Your task to perform on an android device: turn on priority inbox in the gmail app Image 0: 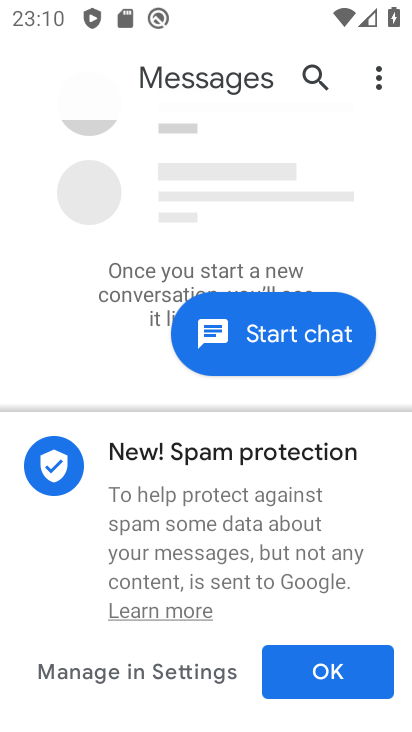
Step 0: press home button
Your task to perform on an android device: turn on priority inbox in the gmail app Image 1: 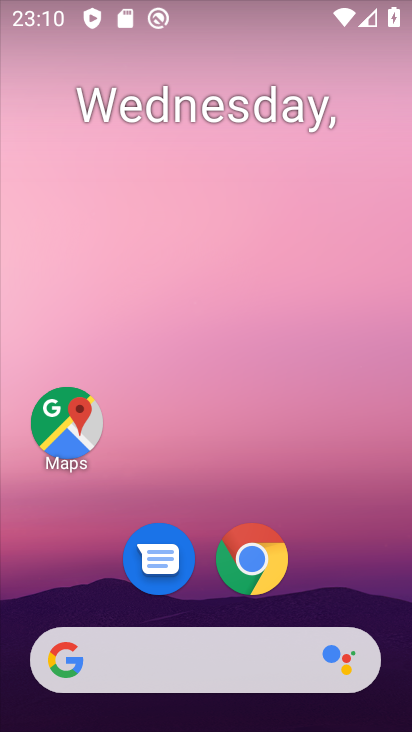
Step 1: drag from (75, 581) to (88, 237)
Your task to perform on an android device: turn on priority inbox in the gmail app Image 2: 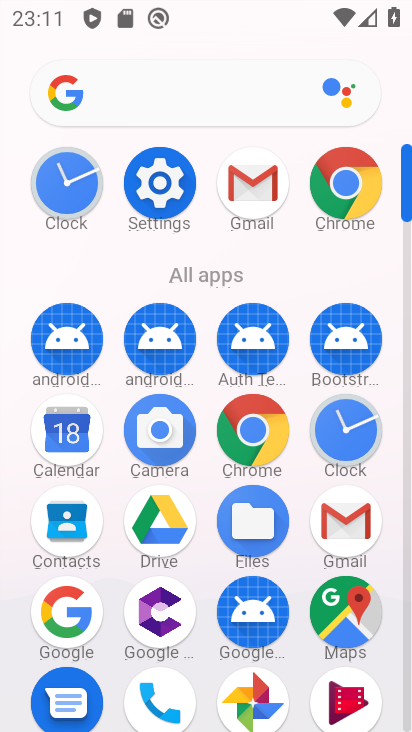
Step 2: click (271, 198)
Your task to perform on an android device: turn on priority inbox in the gmail app Image 3: 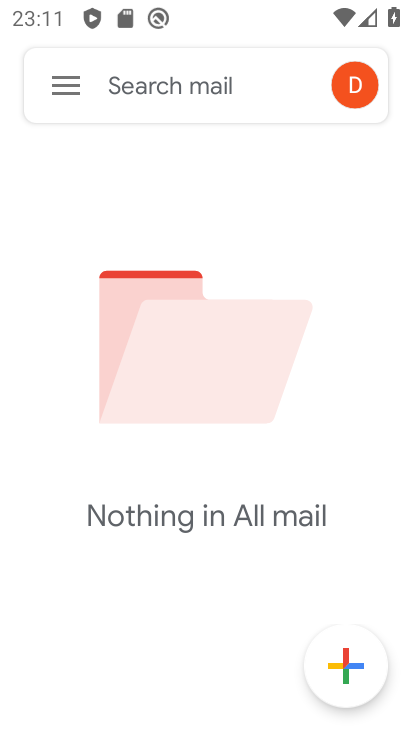
Step 3: click (70, 84)
Your task to perform on an android device: turn on priority inbox in the gmail app Image 4: 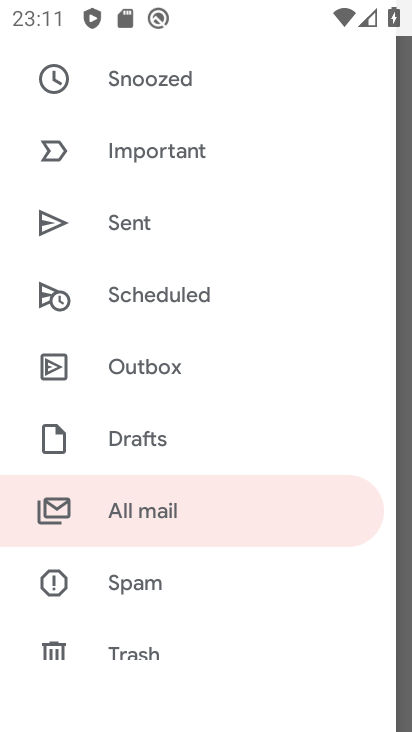
Step 4: drag from (148, 591) to (233, 88)
Your task to perform on an android device: turn on priority inbox in the gmail app Image 5: 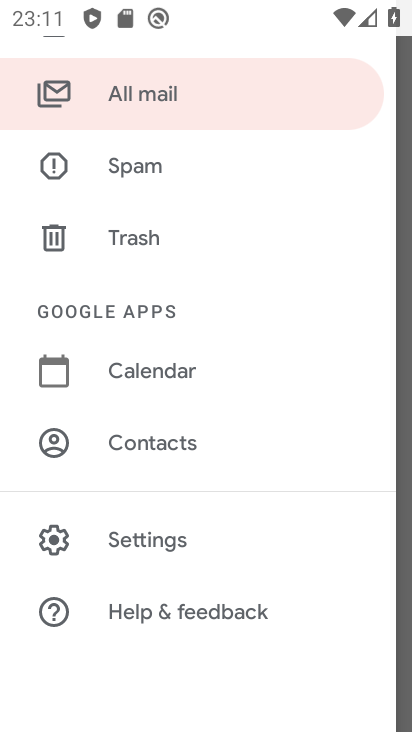
Step 5: click (139, 528)
Your task to perform on an android device: turn on priority inbox in the gmail app Image 6: 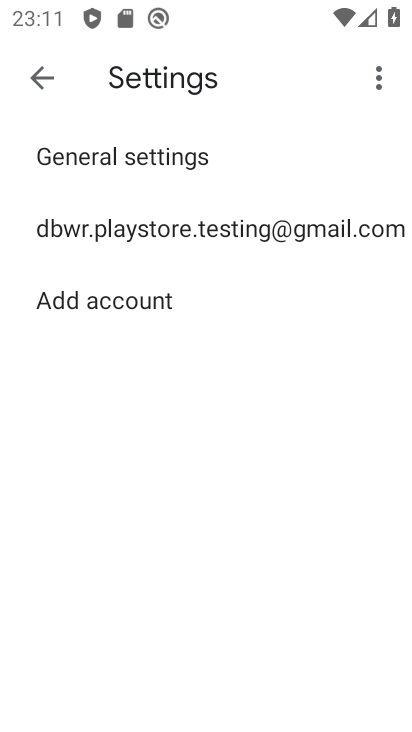
Step 6: click (163, 229)
Your task to perform on an android device: turn on priority inbox in the gmail app Image 7: 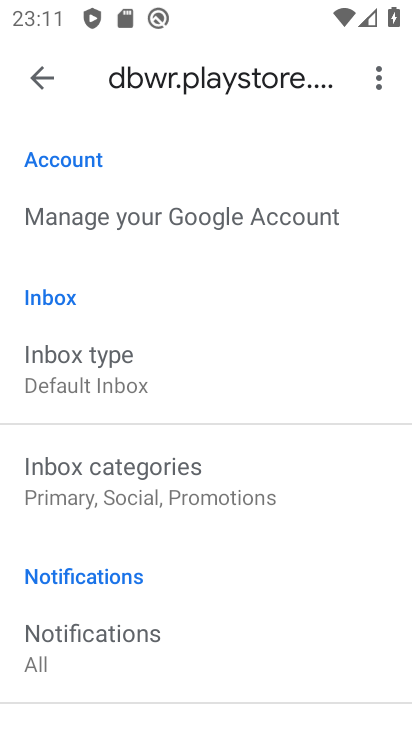
Step 7: drag from (188, 625) to (252, 452)
Your task to perform on an android device: turn on priority inbox in the gmail app Image 8: 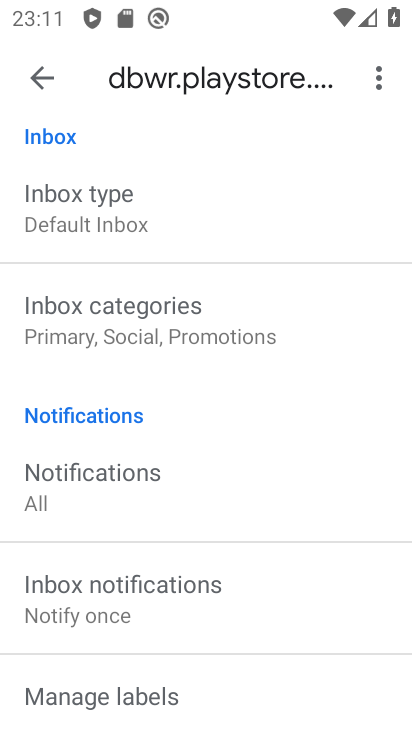
Step 8: click (123, 222)
Your task to perform on an android device: turn on priority inbox in the gmail app Image 9: 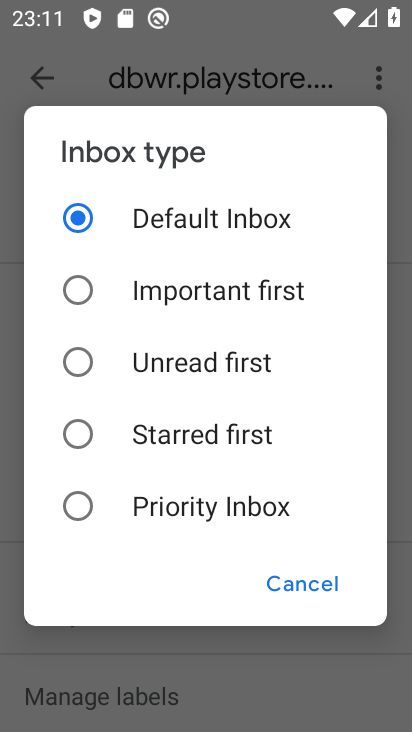
Step 9: click (145, 506)
Your task to perform on an android device: turn on priority inbox in the gmail app Image 10: 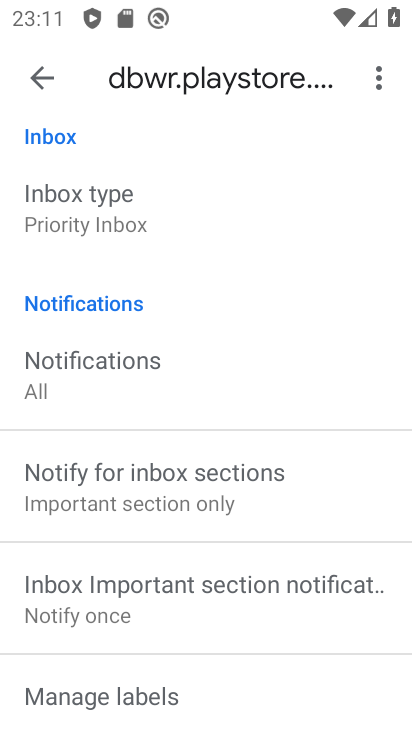
Step 10: task complete